Your task to perform on an android device: open wifi settings Image 0: 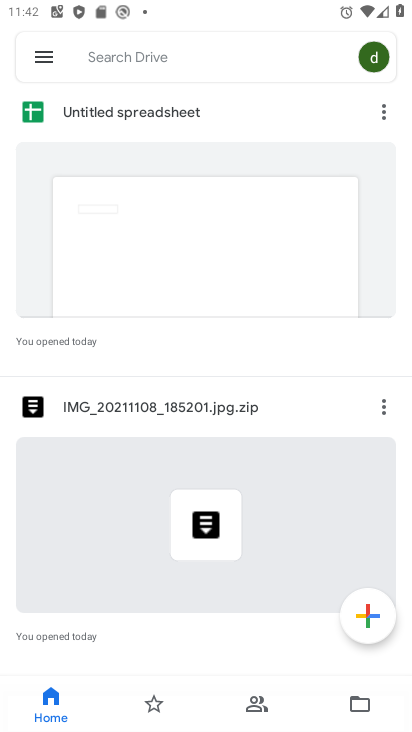
Step 0: press home button
Your task to perform on an android device: open wifi settings Image 1: 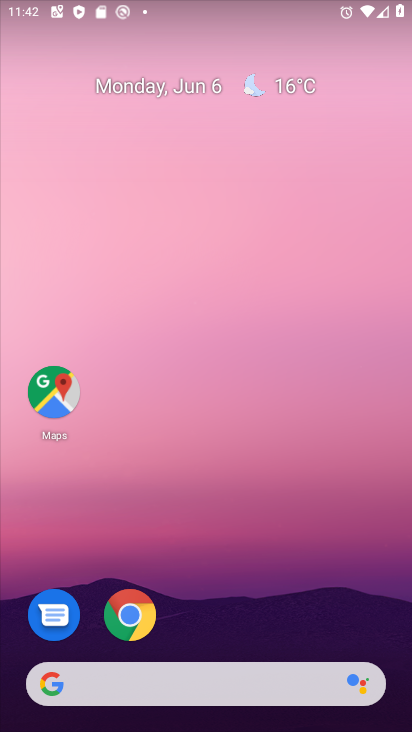
Step 1: drag from (212, 619) to (281, 183)
Your task to perform on an android device: open wifi settings Image 2: 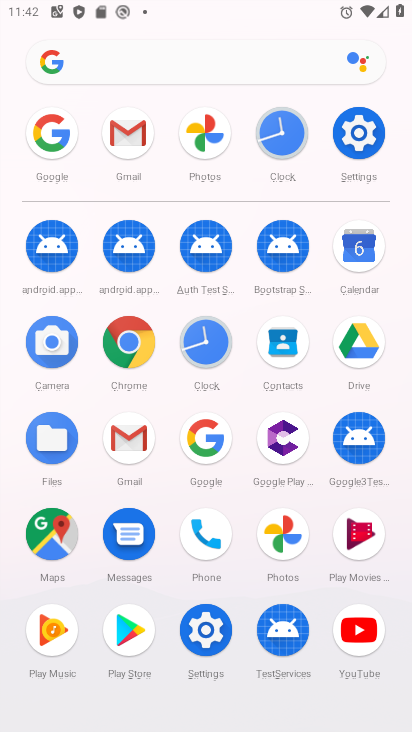
Step 2: click (366, 126)
Your task to perform on an android device: open wifi settings Image 3: 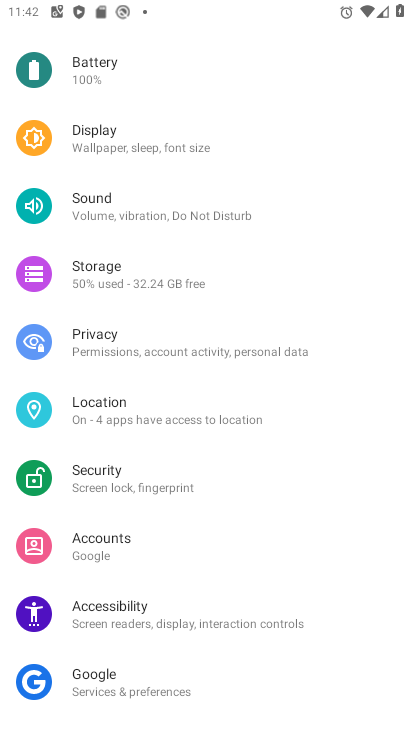
Step 3: drag from (141, 88) to (187, 587)
Your task to perform on an android device: open wifi settings Image 4: 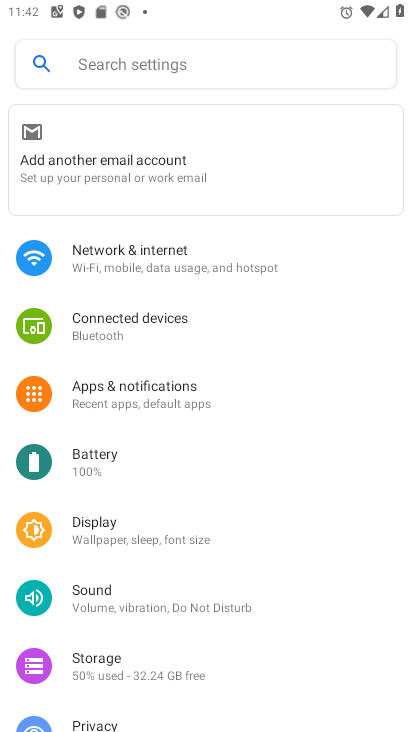
Step 4: click (127, 252)
Your task to perform on an android device: open wifi settings Image 5: 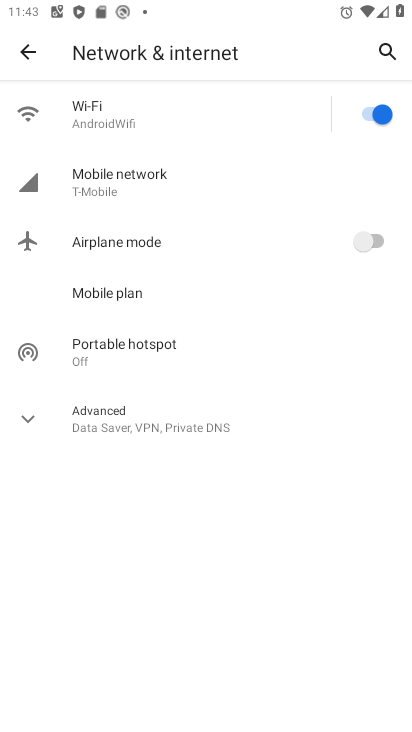
Step 5: click (152, 104)
Your task to perform on an android device: open wifi settings Image 6: 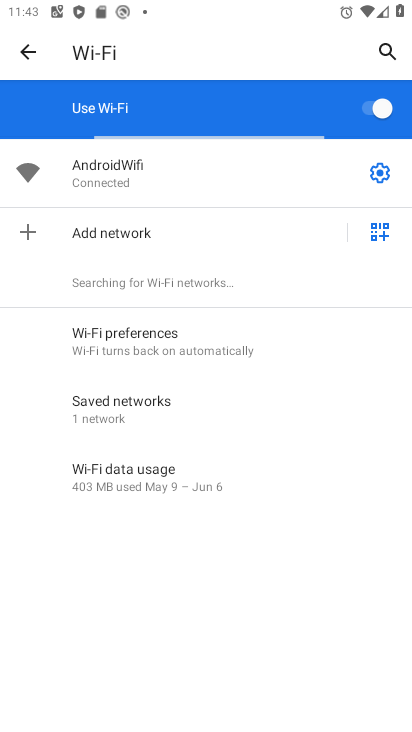
Step 6: task complete